Your task to perform on an android device: turn off wifi Image 0: 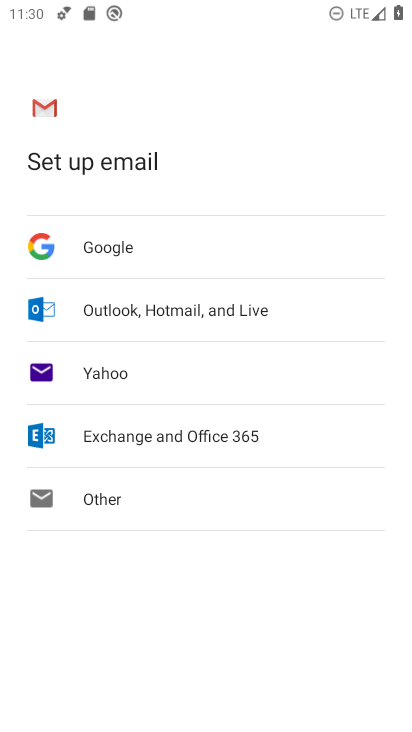
Step 0: press home button
Your task to perform on an android device: turn off wifi Image 1: 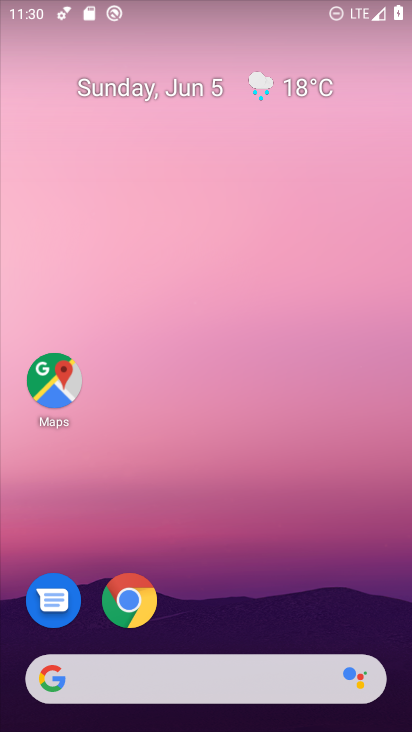
Step 1: drag from (213, 605) to (202, 139)
Your task to perform on an android device: turn off wifi Image 2: 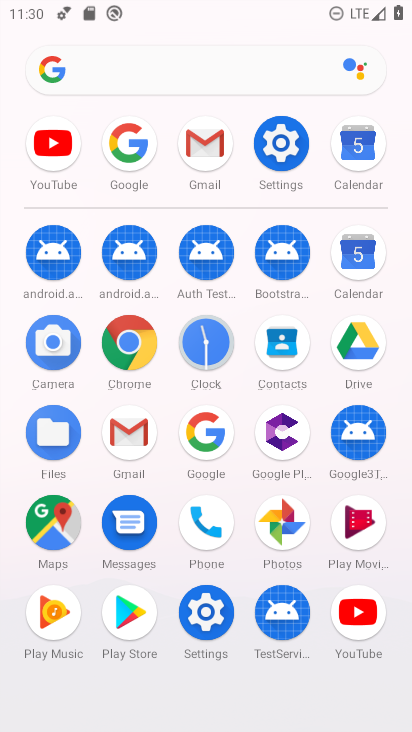
Step 2: click (278, 164)
Your task to perform on an android device: turn off wifi Image 3: 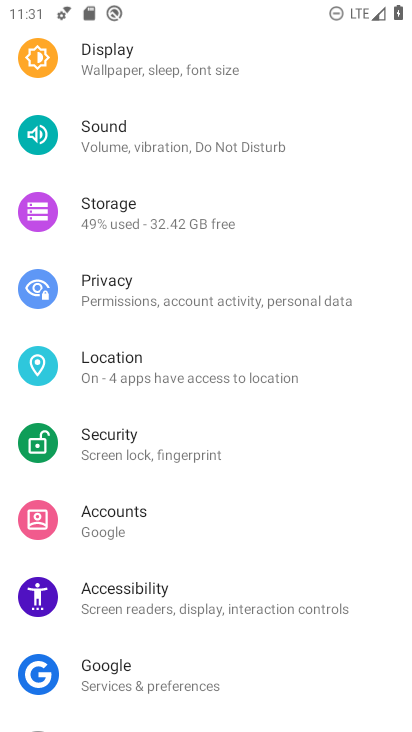
Step 3: drag from (173, 169) to (208, 576)
Your task to perform on an android device: turn off wifi Image 4: 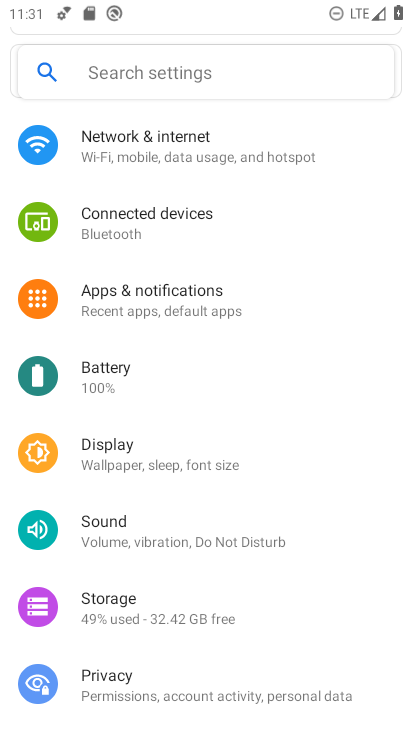
Step 4: click (171, 138)
Your task to perform on an android device: turn off wifi Image 5: 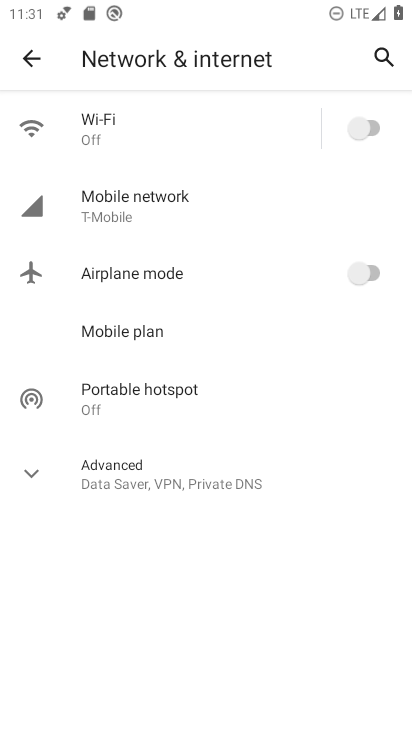
Step 5: task complete